Your task to perform on an android device: Search for vegetarian restaurants on Maps Image 0: 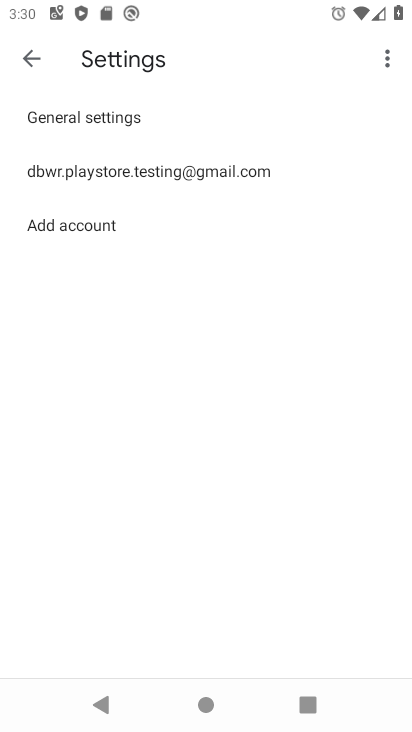
Step 0: press home button
Your task to perform on an android device: Search for vegetarian restaurants on Maps Image 1: 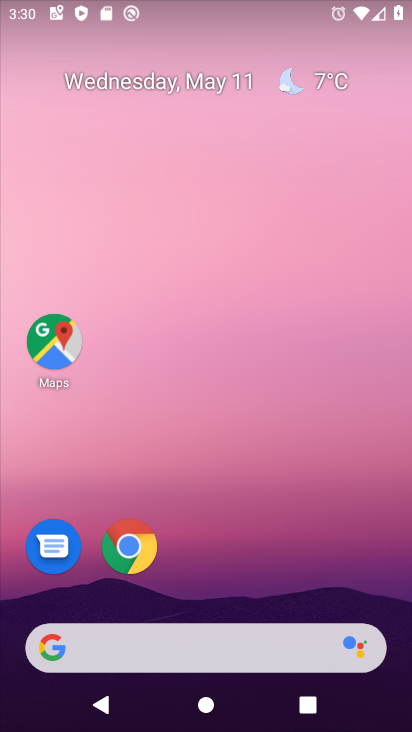
Step 1: drag from (177, 644) to (341, 7)
Your task to perform on an android device: Search for vegetarian restaurants on Maps Image 2: 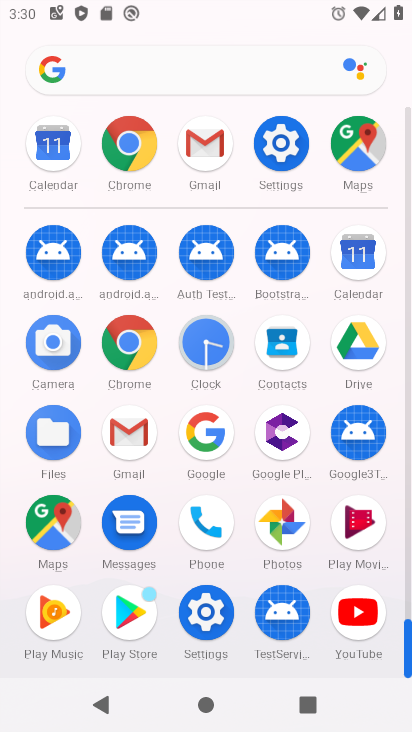
Step 2: click (43, 523)
Your task to perform on an android device: Search for vegetarian restaurants on Maps Image 3: 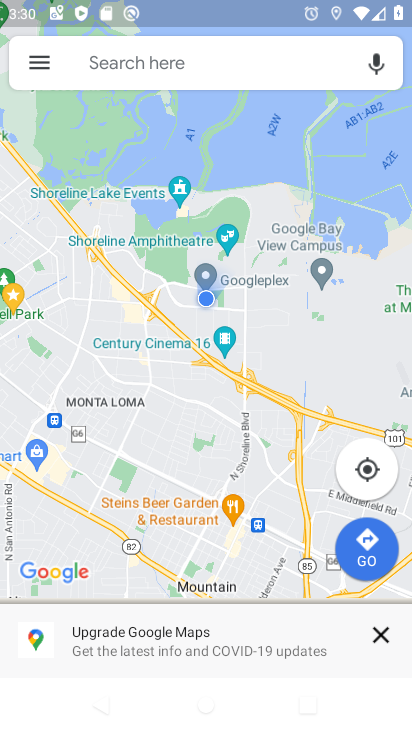
Step 3: click (234, 56)
Your task to perform on an android device: Search for vegetarian restaurants on Maps Image 4: 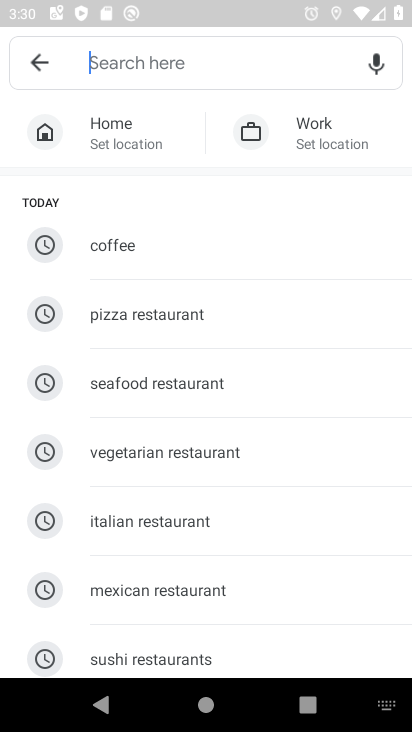
Step 4: click (193, 449)
Your task to perform on an android device: Search for vegetarian restaurants on Maps Image 5: 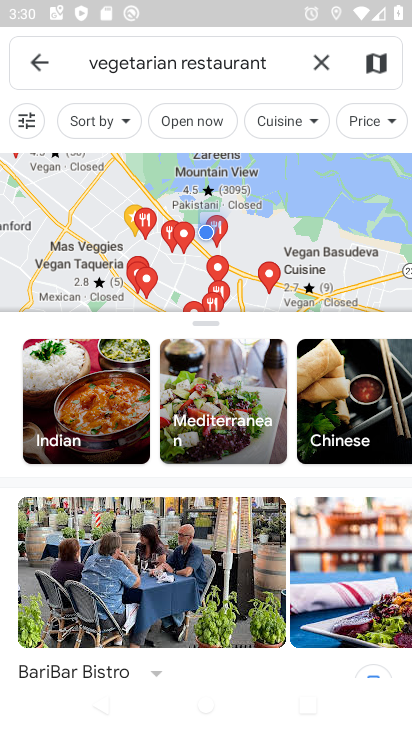
Step 5: task complete